Your task to perform on an android device: turn notification dots off Image 0: 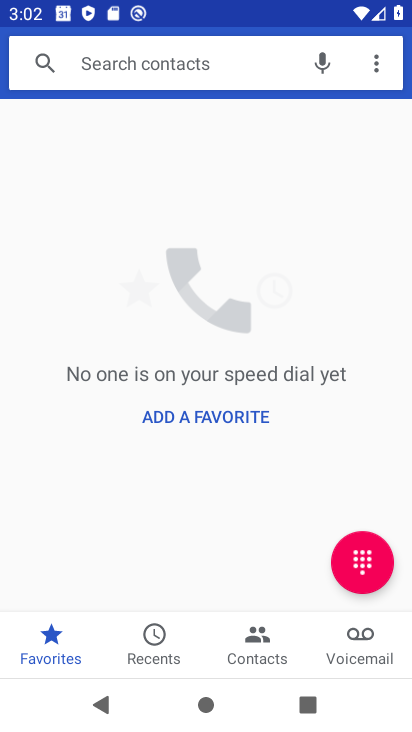
Step 0: press home button
Your task to perform on an android device: turn notification dots off Image 1: 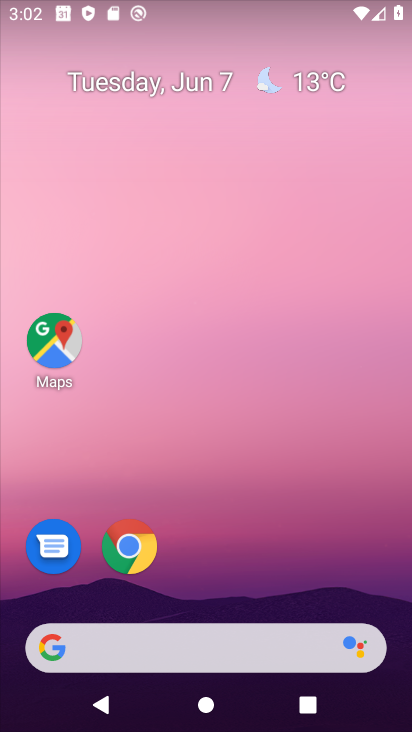
Step 1: drag from (196, 571) to (294, 221)
Your task to perform on an android device: turn notification dots off Image 2: 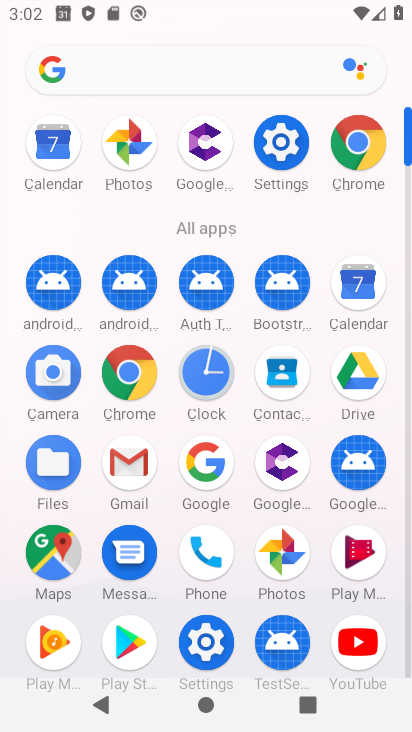
Step 2: click (204, 643)
Your task to perform on an android device: turn notification dots off Image 3: 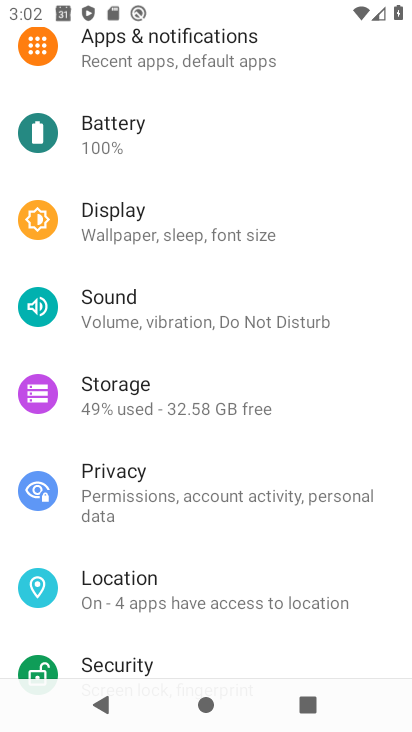
Step 3: drag from (217, 172) to (210, 380)
Your task to perform on an android device: turn notification dots off Image 4: 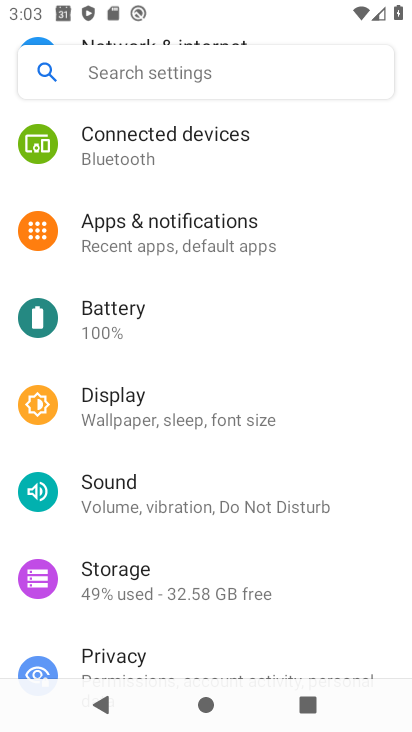
Step 4: click (177, 254)
Your task to perform on an android device: turn notification dots off Image 5: 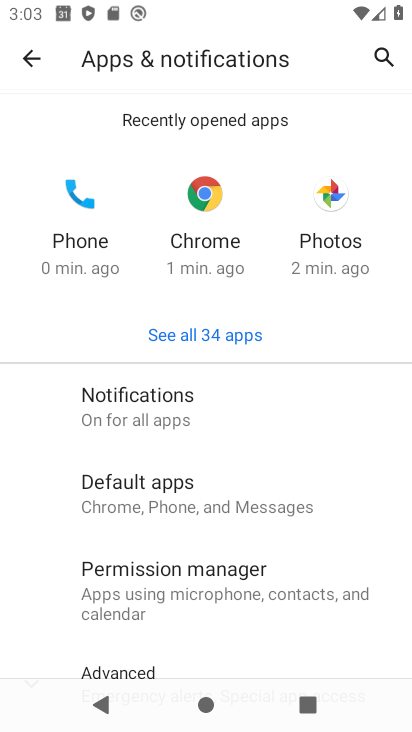
Step 5: click (147, 424)
Your task to perform on an android device: turn notification dots off Image 6: 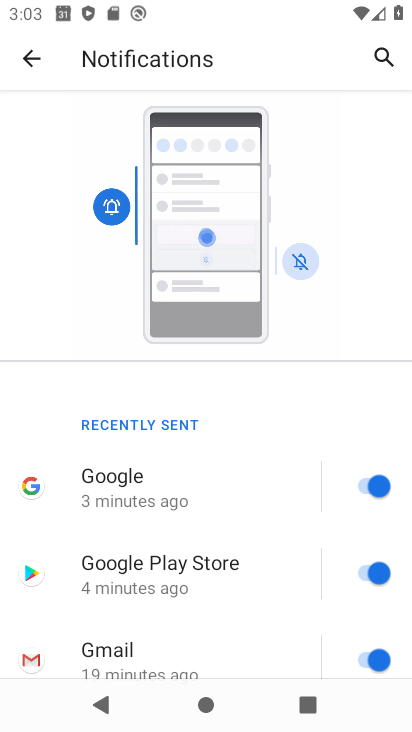
Step 6: drag from (149, 615) to (226, 195)
Your task to perform on an android device: turn notification dots off Image 7: 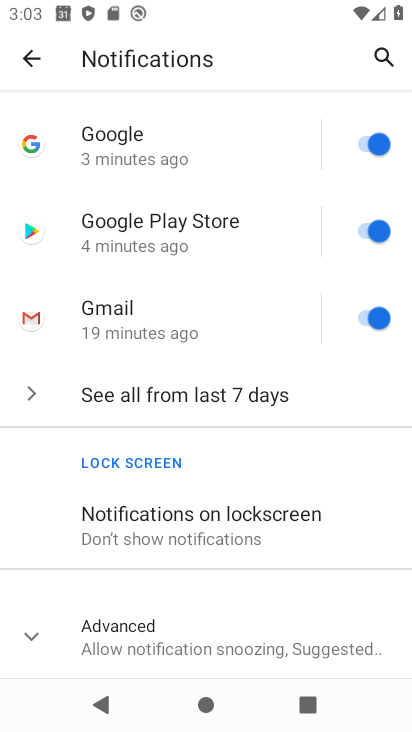
Step 7: drag from (137, 627) to (147, 308)
Your task to perform on an android device: turn notification dots off Image 8: 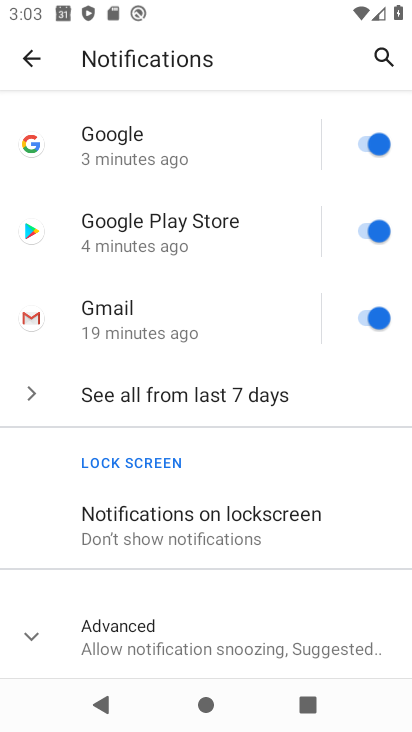
Step 8: click (25, 624)
Your task to perform on an android device: turn notification dots off Image 9: 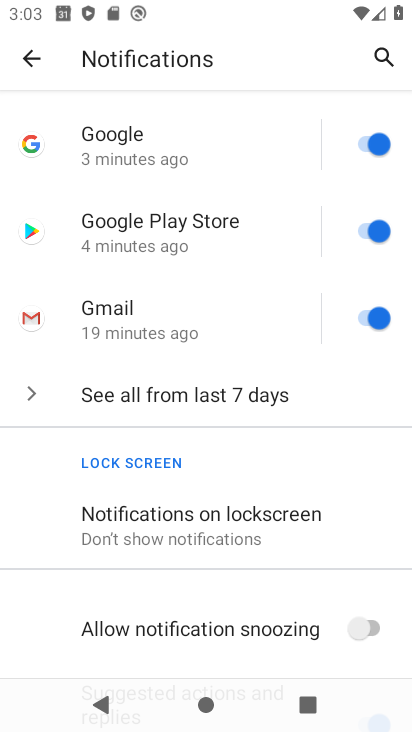
Step 9: task complete